Your task to perform on an android device: stop showing notifications on the lock screen Image 0: 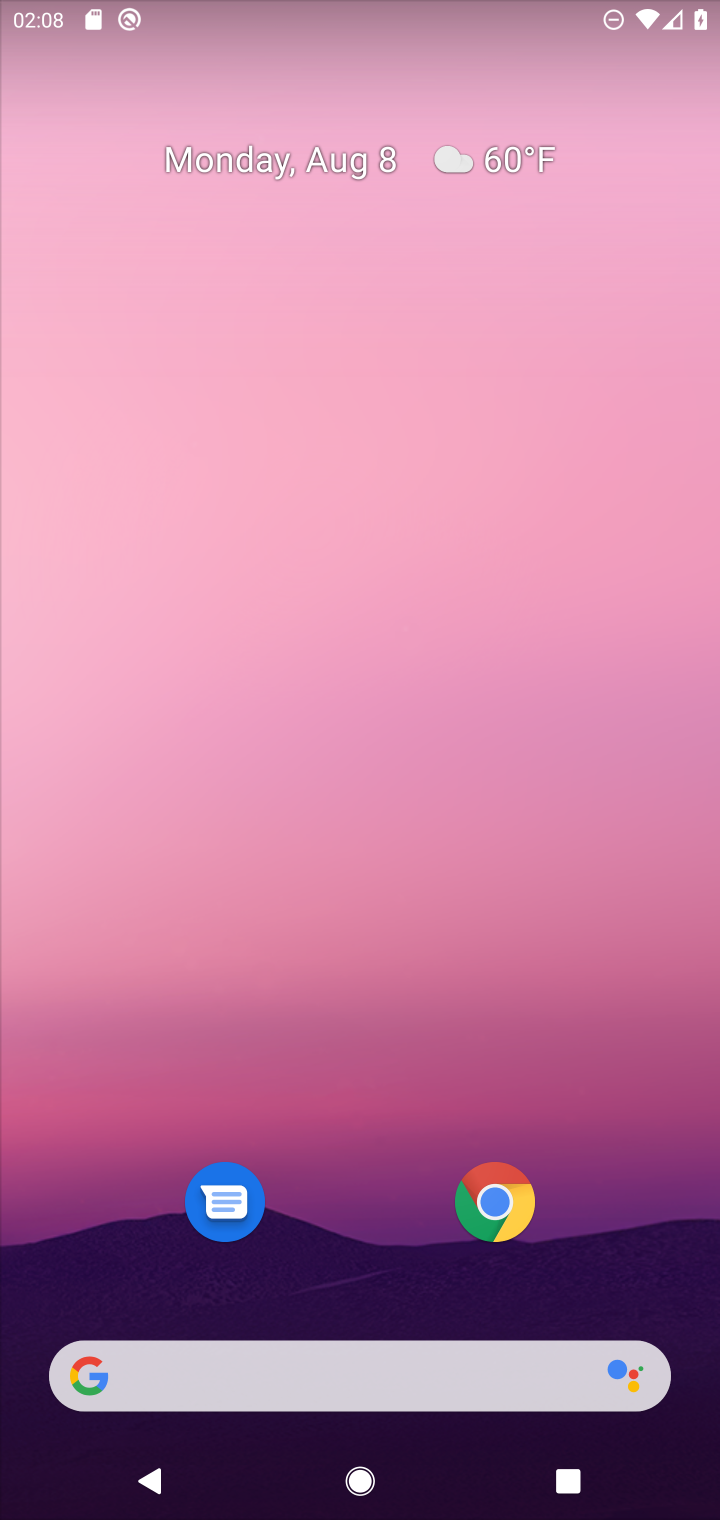
Step 0: press home button
Your task to perform on an android device: stop showing notifications on the lock screen Image 1: 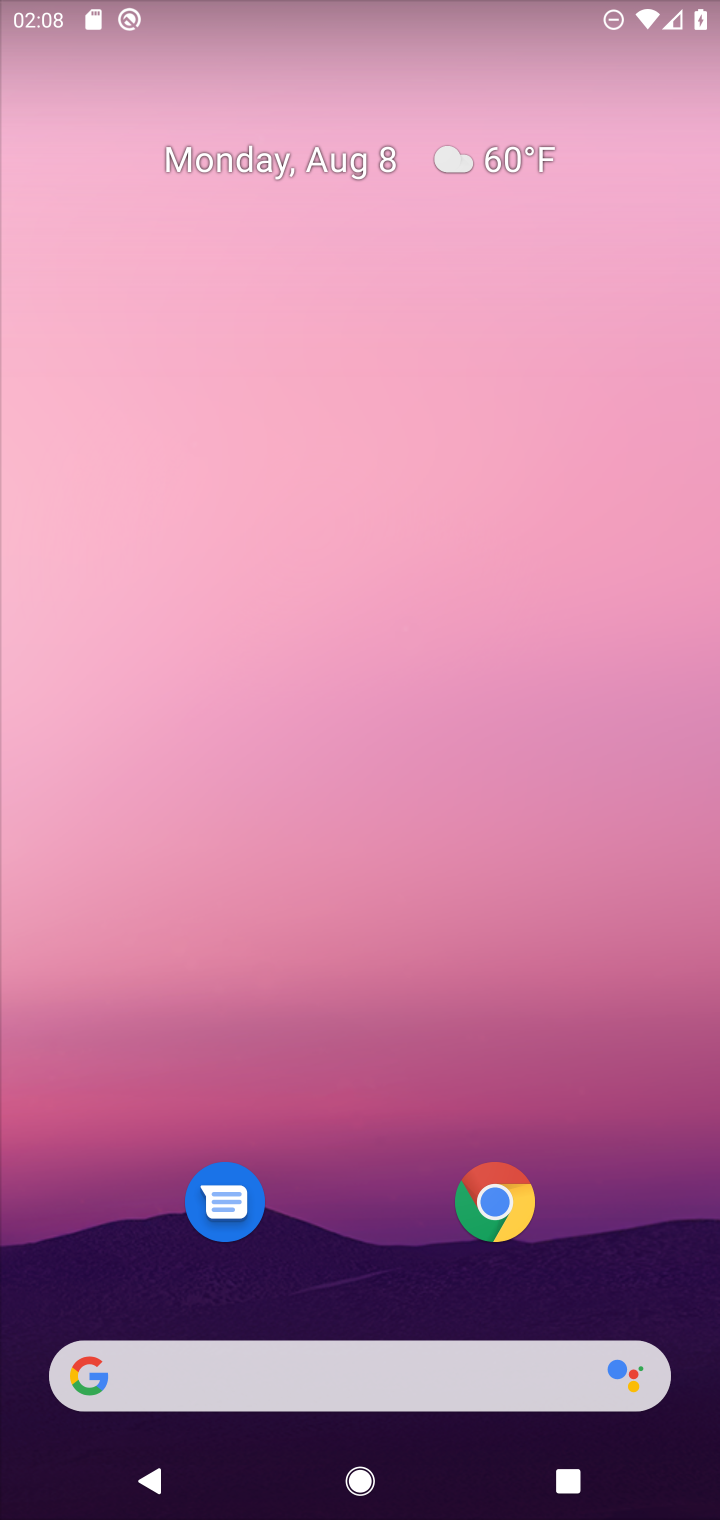
Step 1: press home button
Your task to perform on an android device: stop showing notifications on the lock screen Image 2: 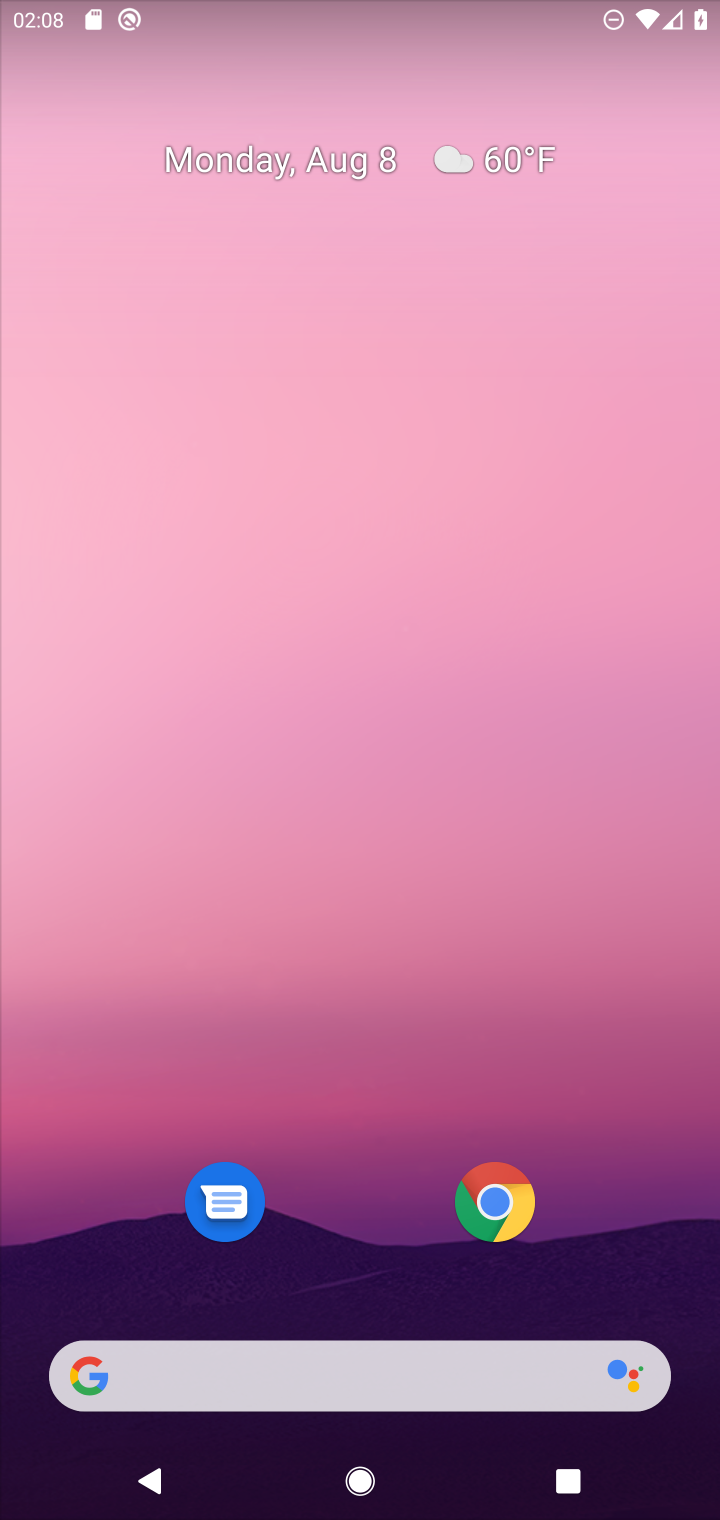
Step 2: drag from (590, 1164) to (666, 194)
Your task to perform on an android device: stop showing notifications on the lock screen Image 3: 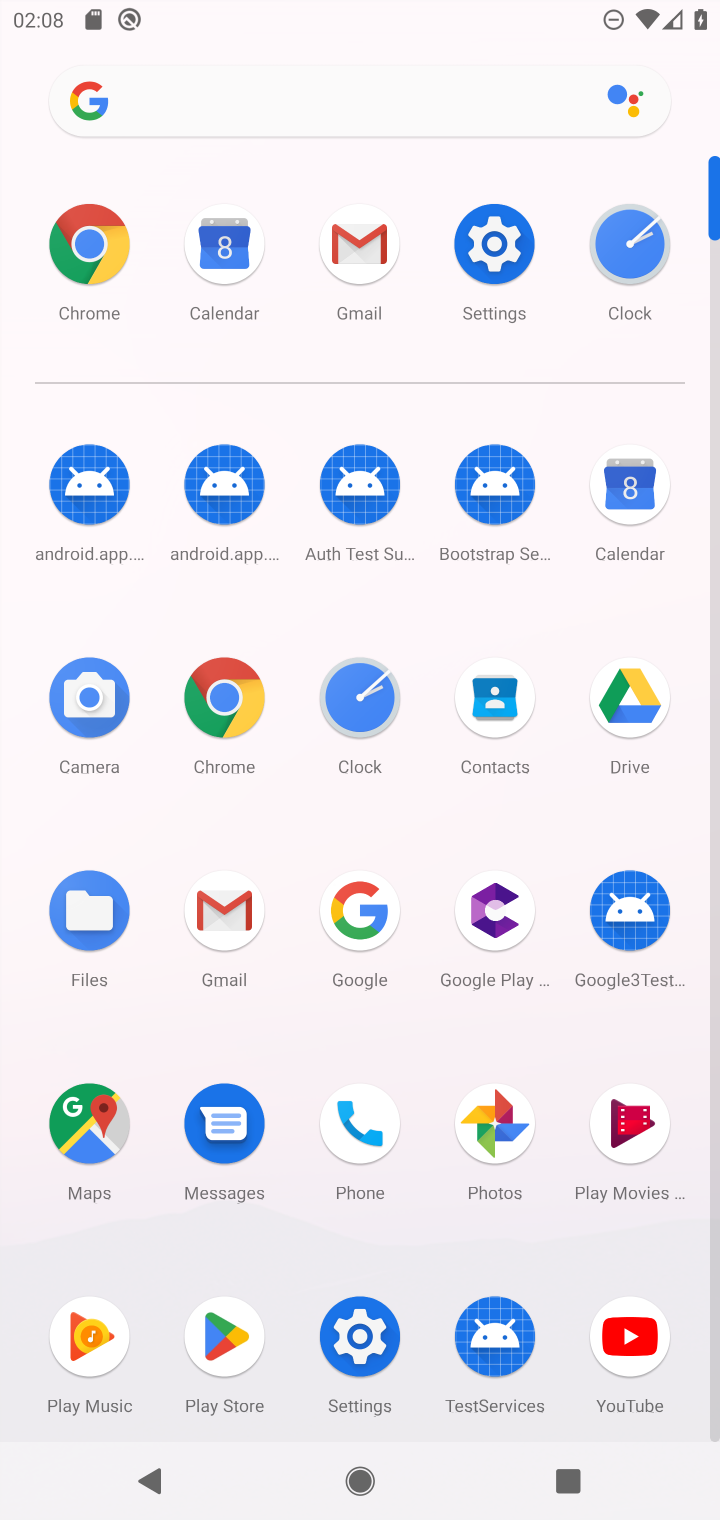
Step 3: click (506, 240)
Your task to perform on an android device: stop showing notifications on the lock screen Image 4: 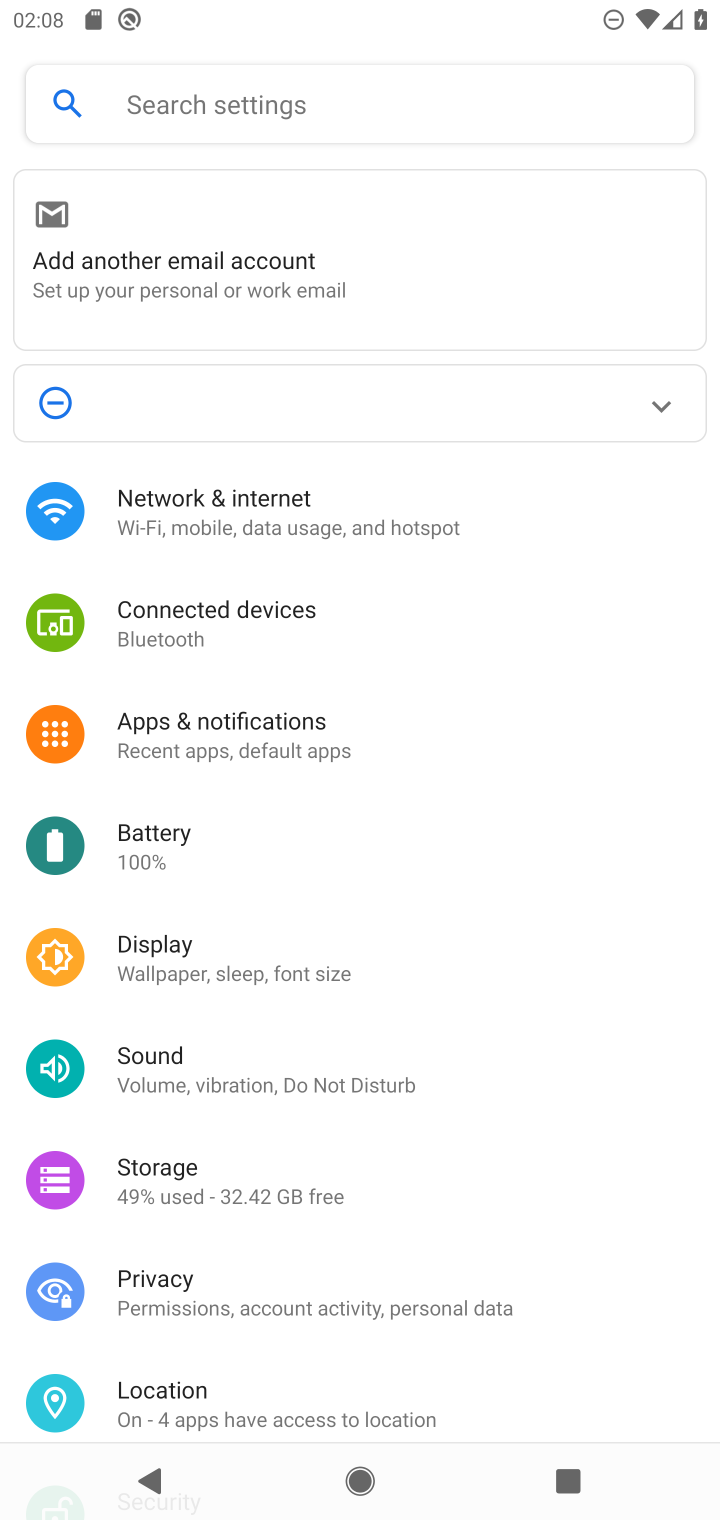
Step 4: drag from (557, 990) to (565, 583)
Your task to perform on an android device: stop showing notifications on the lock screen Image 5: 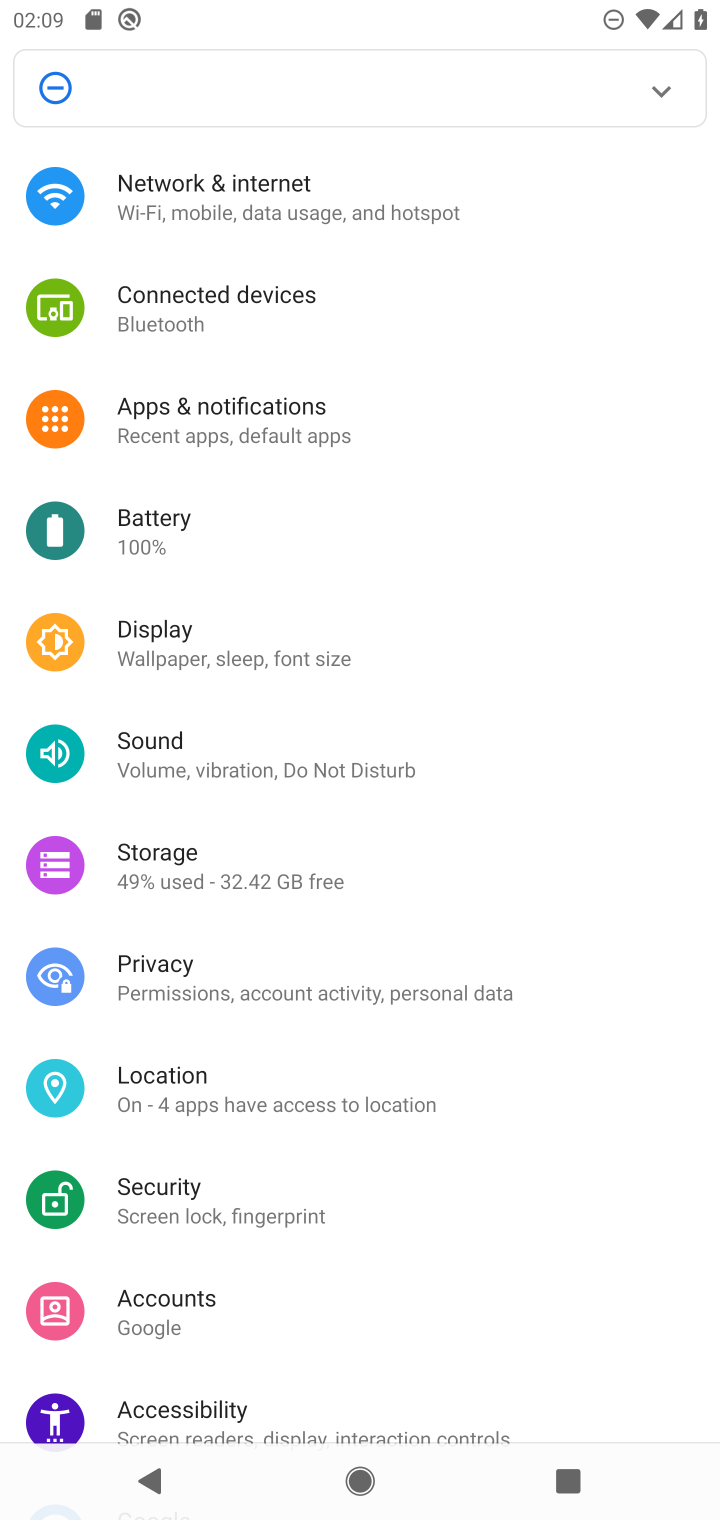
Step 5: drag from (552, 944) to (576, 643)
Your task to perform on an android device: stop showing notifications on the lock screen Image 6: 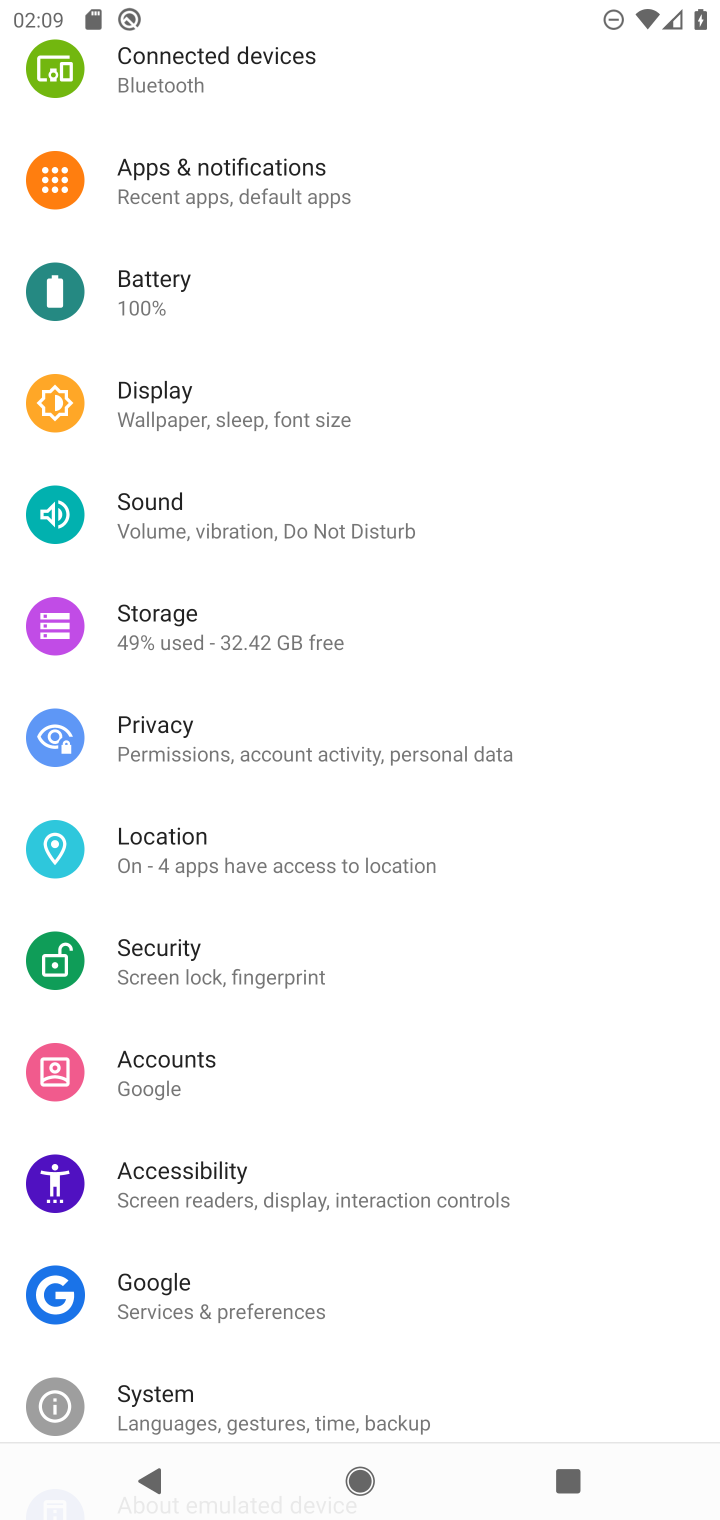
Step 6: click (393, 196)
Your task to perform on an android device: stop showing notifications on the lock screen Image 7: 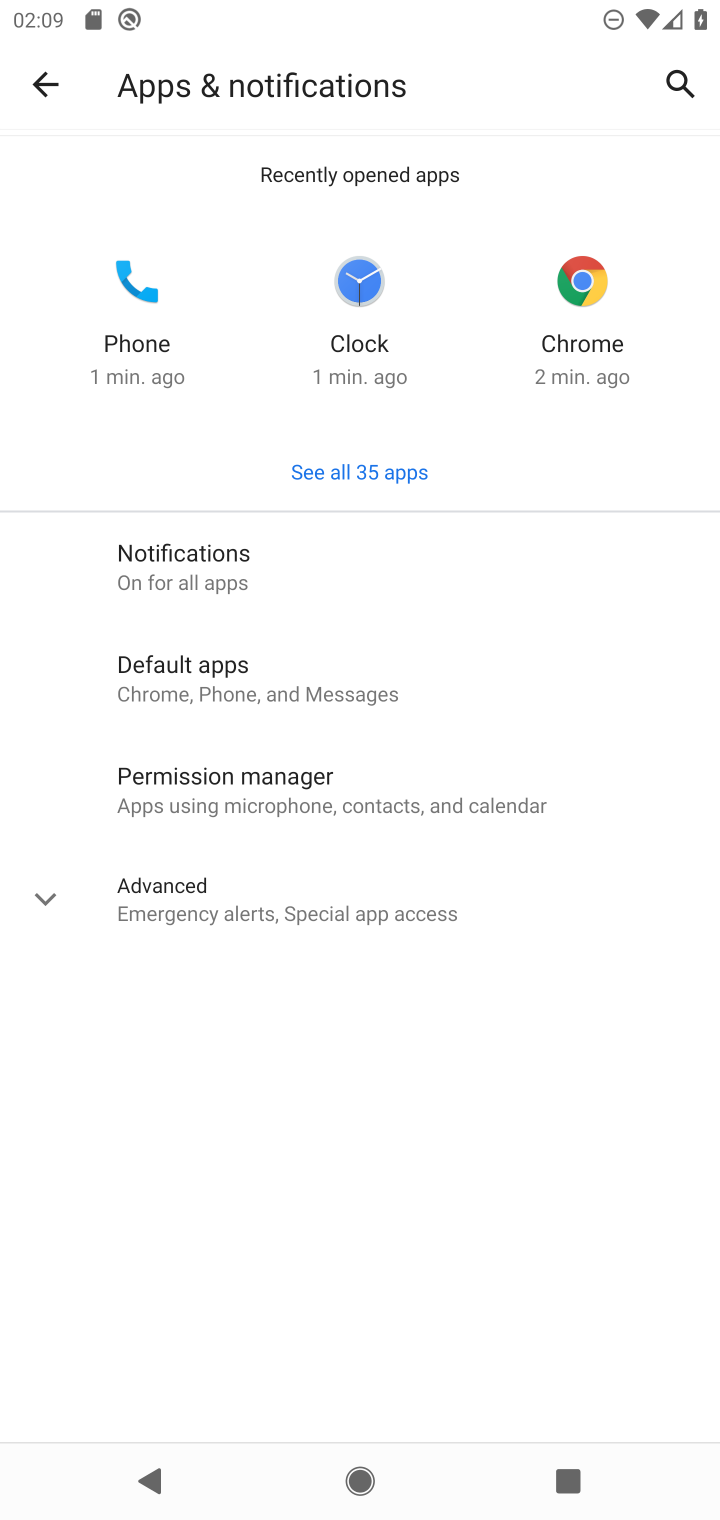
Step 7: click (267, 589)
Your task to perform on an android device: stop showing notifications on the lock screen Image 8: 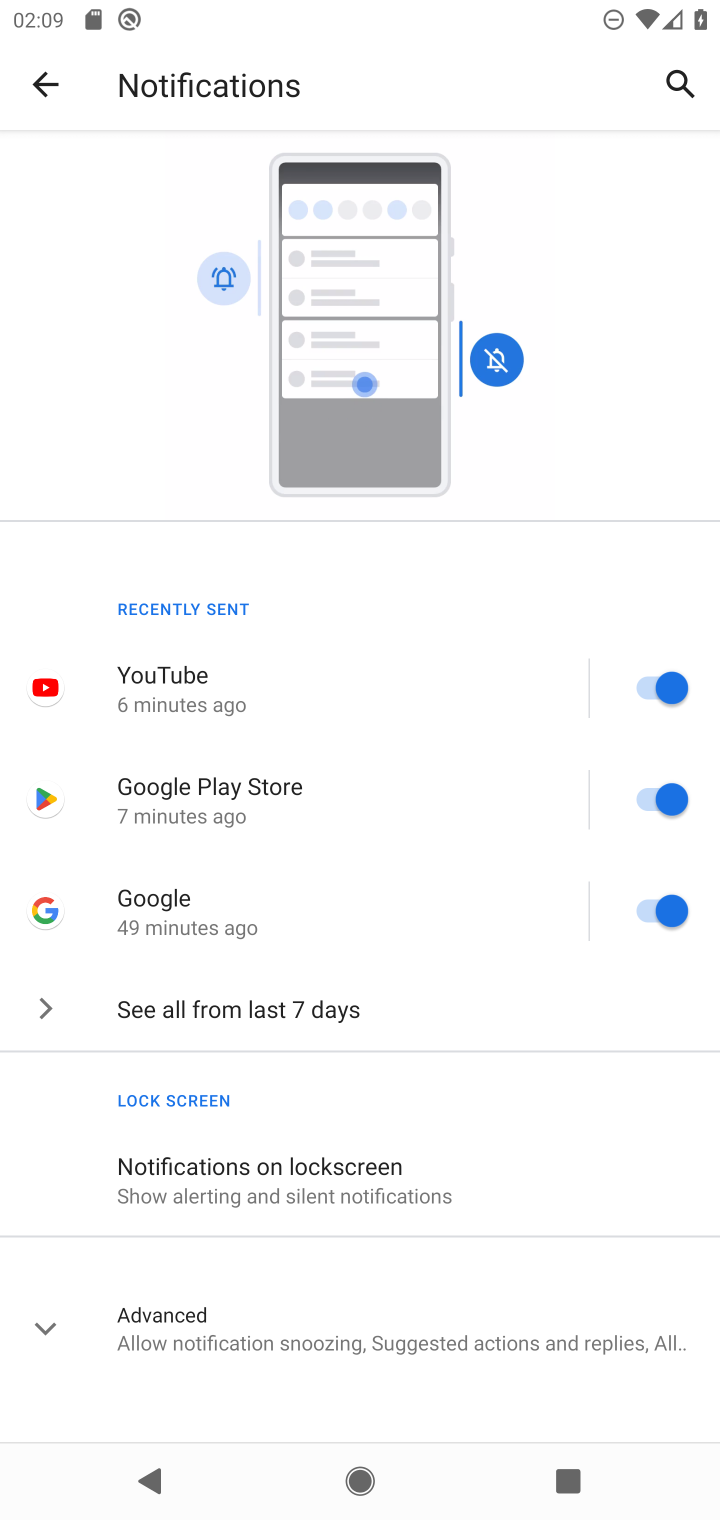
Step 8: drag from (422, 948) to (480, 635)
Your task to perform on an android device: stop showing notifications on the lock screen Image 9: 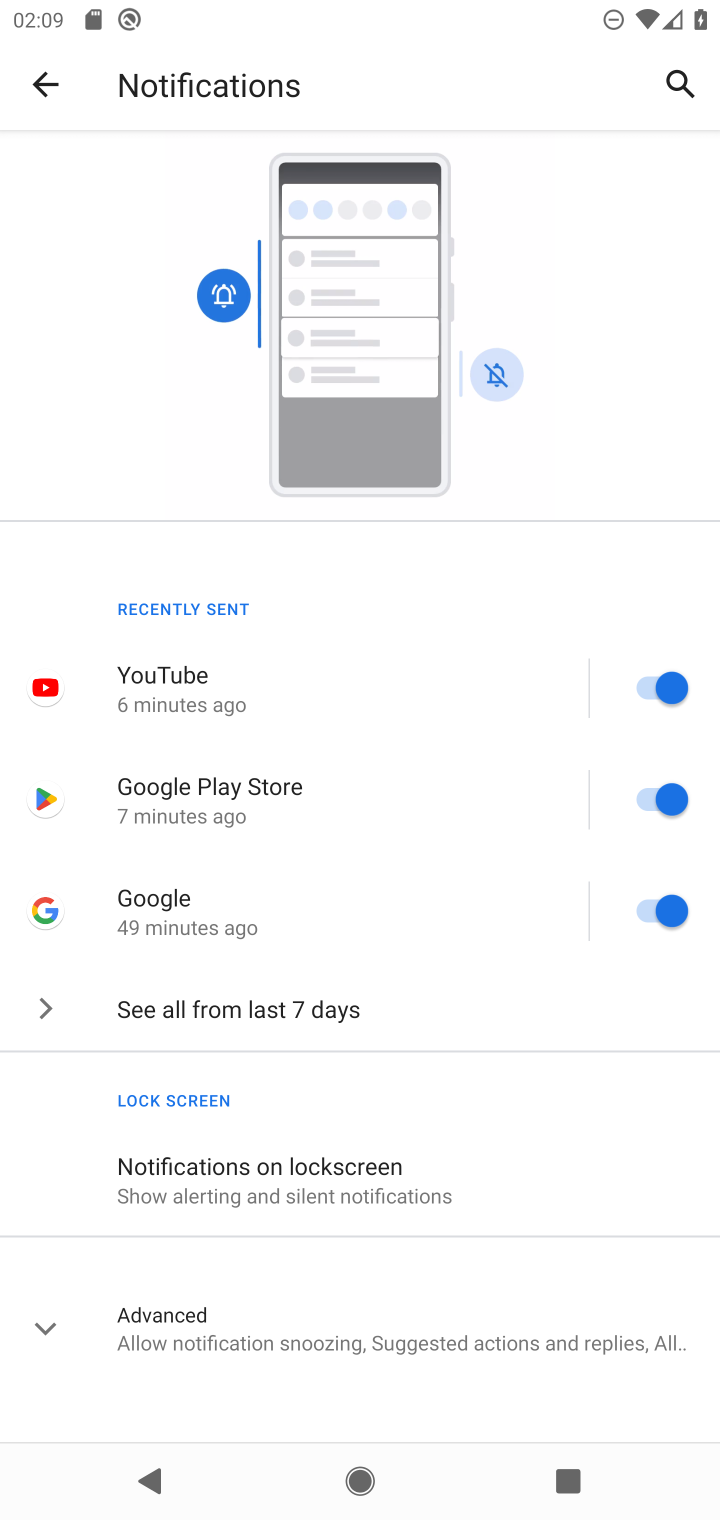
Step 9: click (428, 1160)
Your task to perform on an android device: stop showing notifications on the lock screen Image 10: 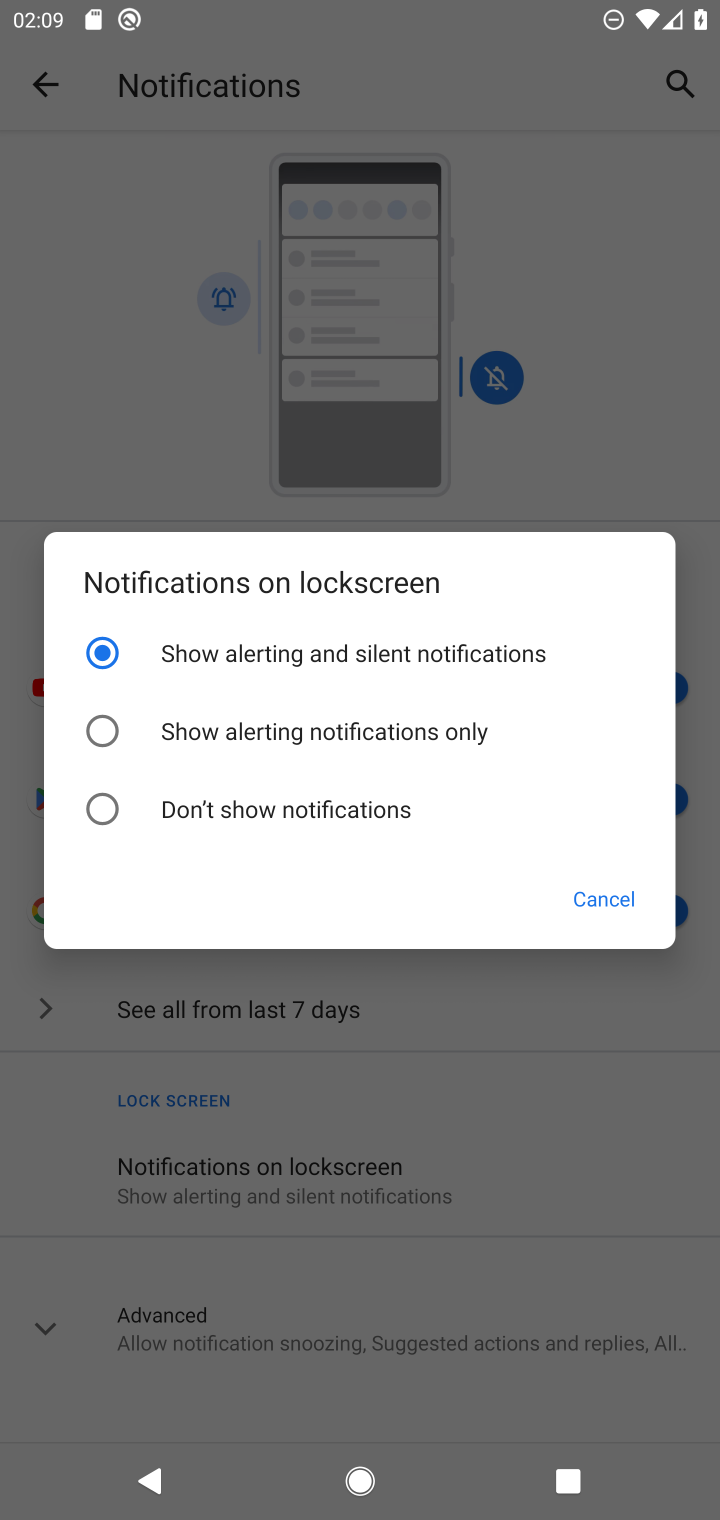
Step 10: click (279, 804)
Your task to perform on an android device: stop showing notifications on the lock screen Image 11: 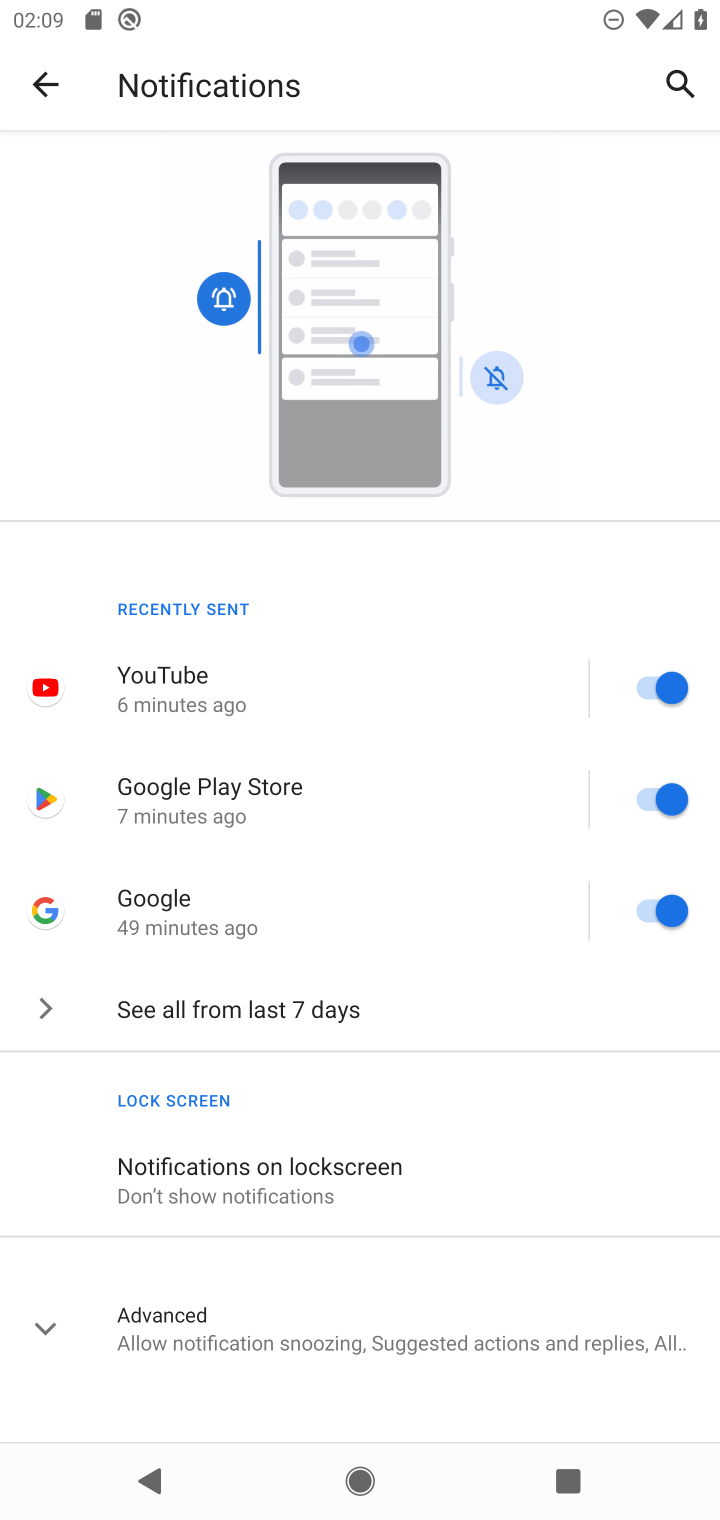
Step 11: task complete